Your task to perform on an android device: show emergency info Image 0: 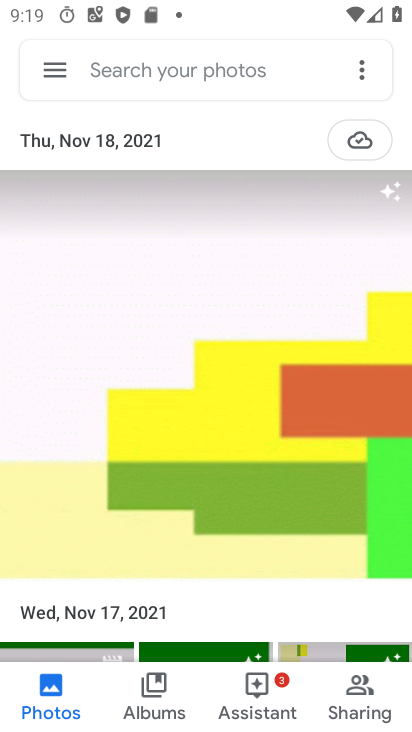
Step 0: press home button
Your task to perform on an android device: show emergency info Image 1: 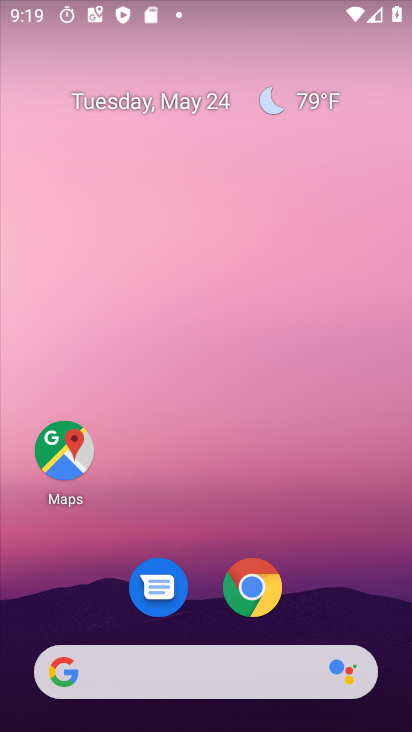
Step 1: drag from (329, 601) to (299, 1)
Your task to perform on an android device: show emergency info Image 2: 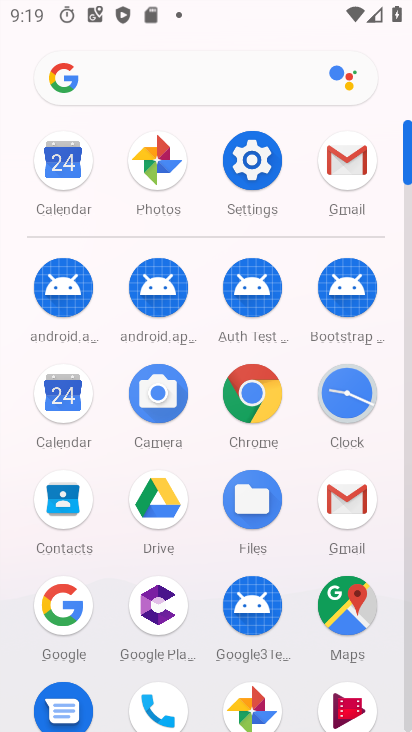
Step 2: click (250, 156)
Your task to perform on an android device: show emergency info Image 3: 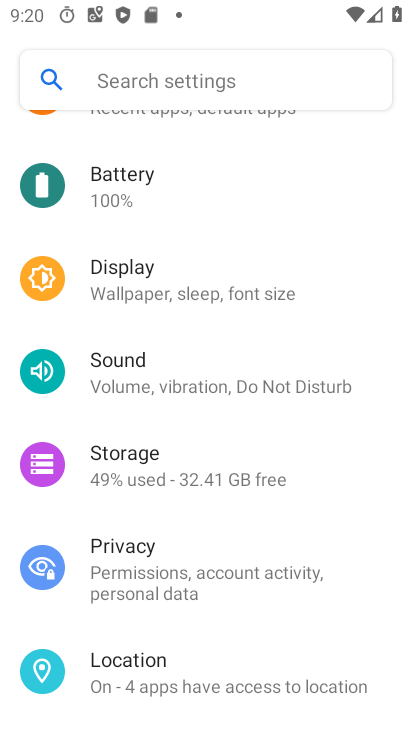
Step 3: drag from (216, 151) to (217, 262)
Your task to perform on an android device: show emergency info Image 4: 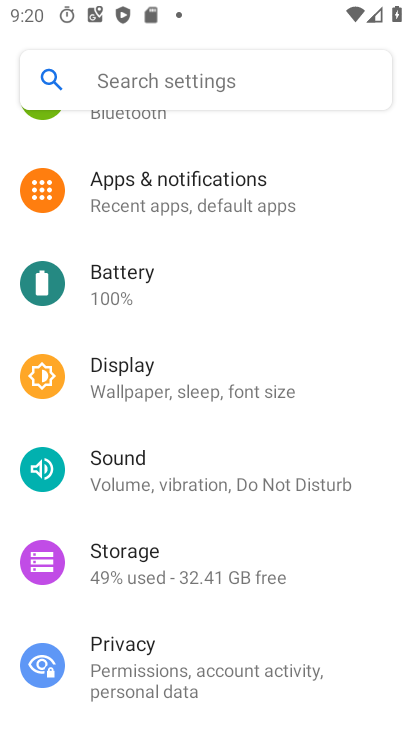
Step 4: drag from (205, 435) to (242, 365)
Your task to perform on an android device: show emergency info Image 5: 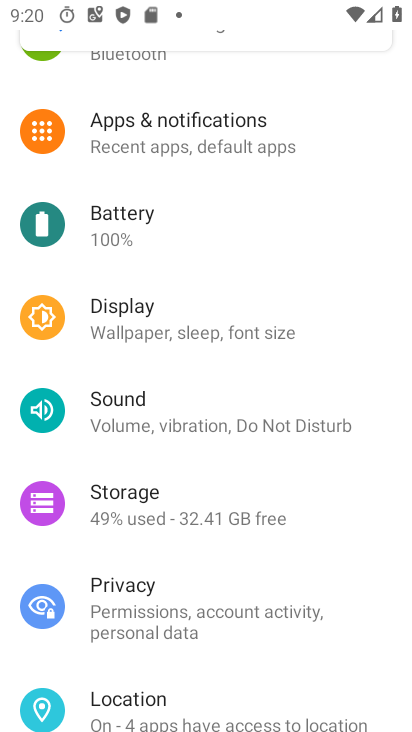
Step 5: drag from (206, 457) to (262, 376)
Your task to perform on an android device: show emergency info Image 6: 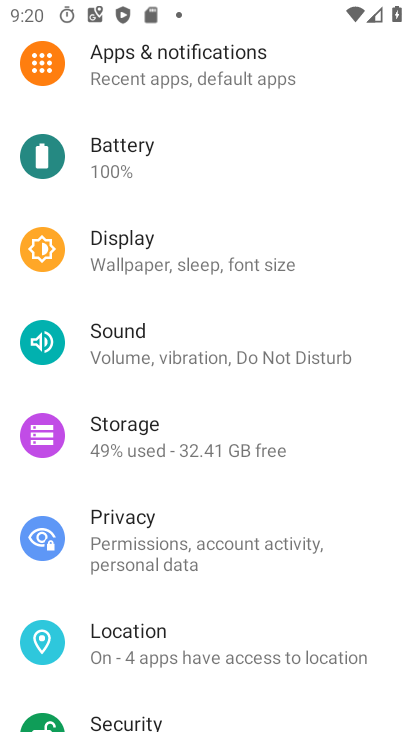
Step 6: drag from (209, 486) to (271, 381)
Your task to perform on an android device: show emergency info Image 7: 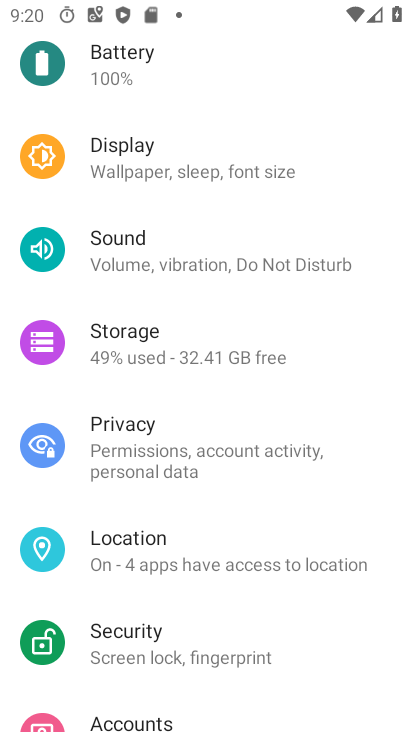
Step 7: drag from (172, 496) to (248, 400)
Your task to perform on an android device: show emergency info Image 8: 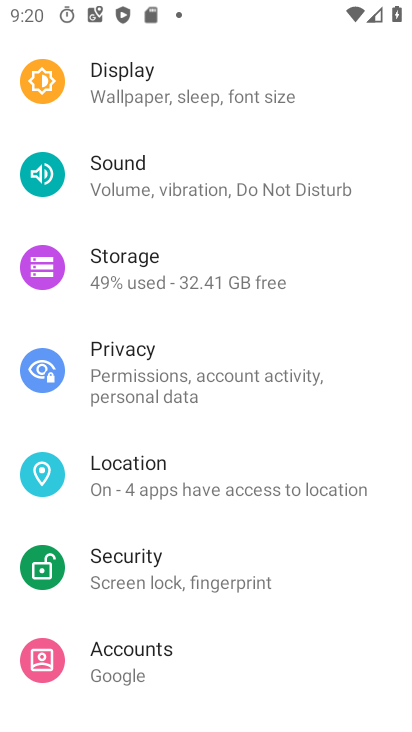
Step 8: drag from (149, 514) to (249, 407)
Your task to perform on an android device: show emergency info Image 9: 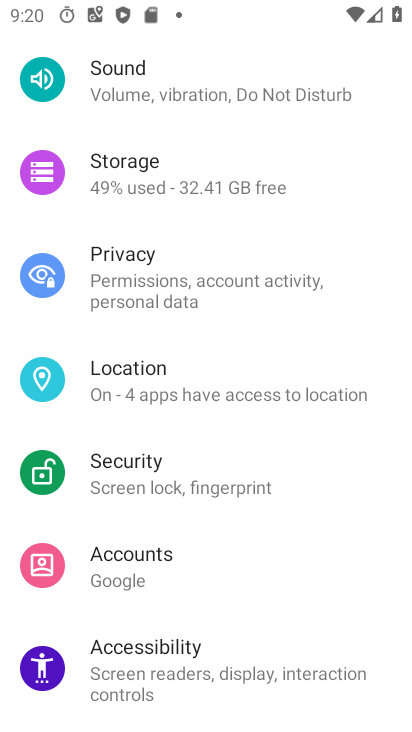
Step 9: drag from (149, 519) to (259, 398)
Your task to perform on an android device: show emergency info Image 10: 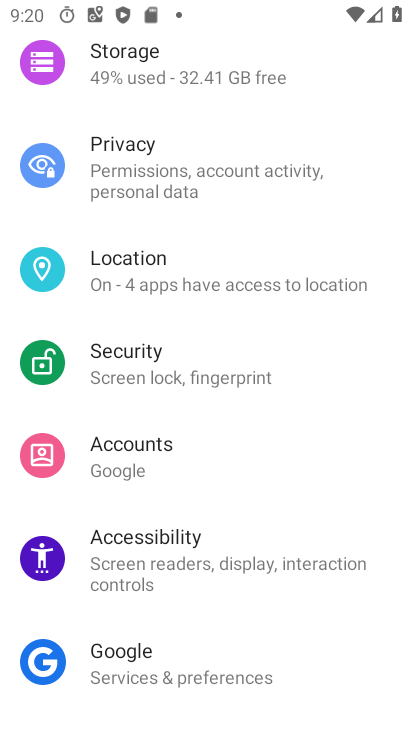
Step 10: drag from (162, 483) to (250, 388)
Your task to perform on an android device: show emergency info Image 11: 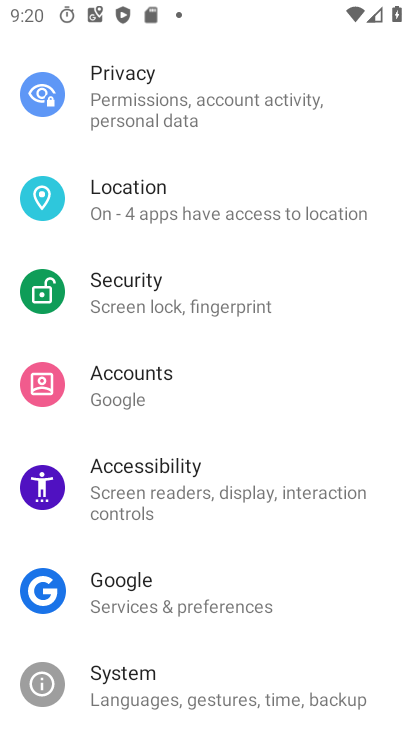
Step 11: drag from (163, 517) to (255, 418)
Your task to perform on an android device: show emergency info Image 12: 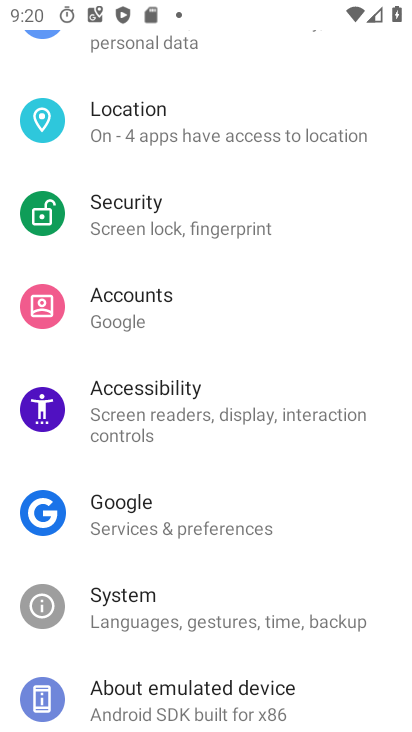
Step 12: drag from (139, 550) to (248, 437)
Your task to perform on an android device: show emergency info Image 13: 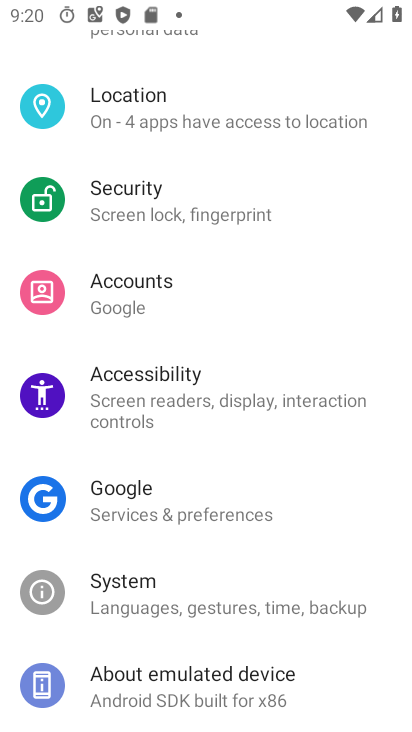
Step 13: click (177, 671)
Your task to perform on an android device: show emergency info Image 14: 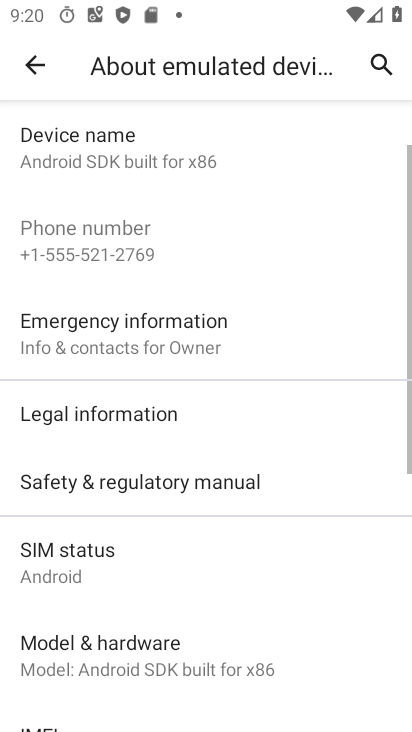
Step 14: click (170, 320)
Your task to perform on an android device: show emergency info Image 15: 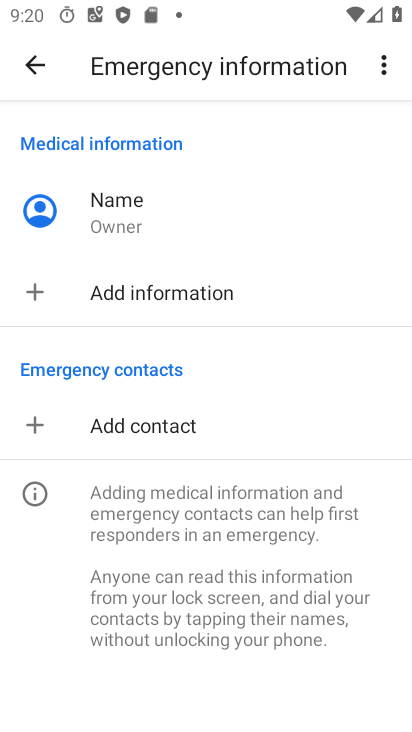
Step 15: task complete